Your task to perform on an android device: What's the latest video from GameSpot eSports? Image 0: 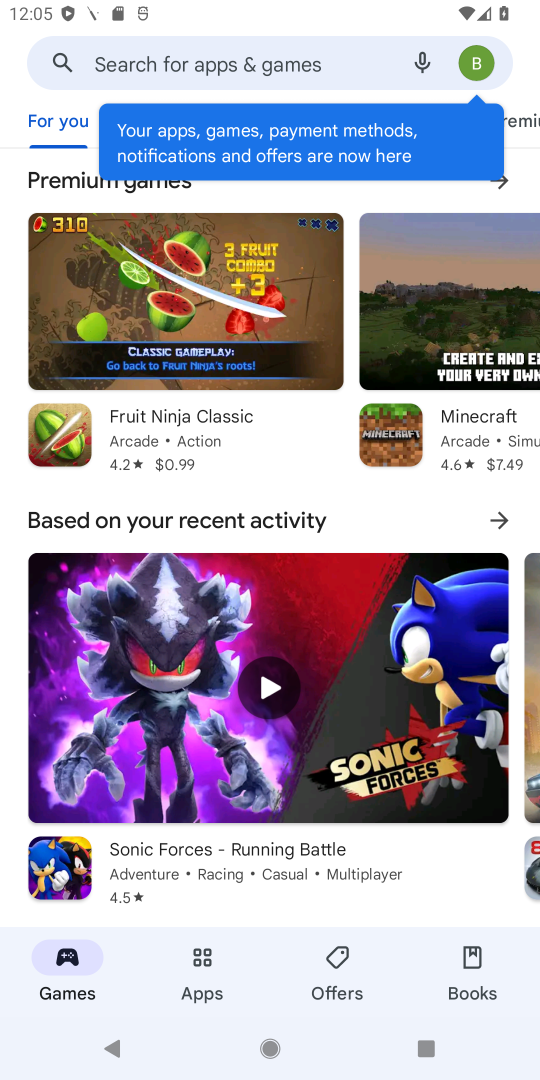
Step 0: press home button
Your task to perform on an android device: What's the latest video from GameSpot eSports? Image 1: 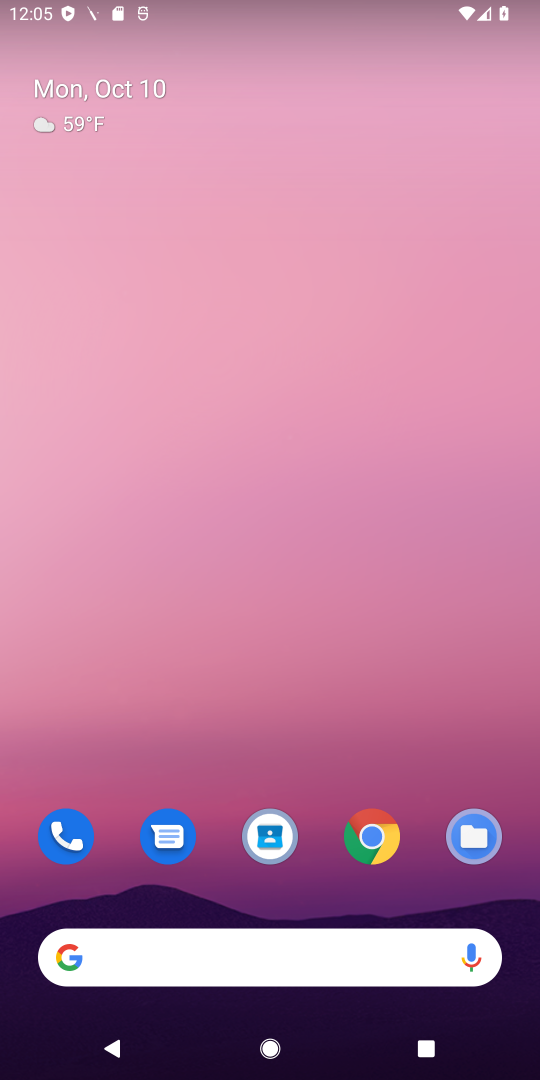
Step 1: drag from (351, 774) to (320, 40)
Your task to perform on an android device: What's the latest video from GameSpot eSports? Image 2: 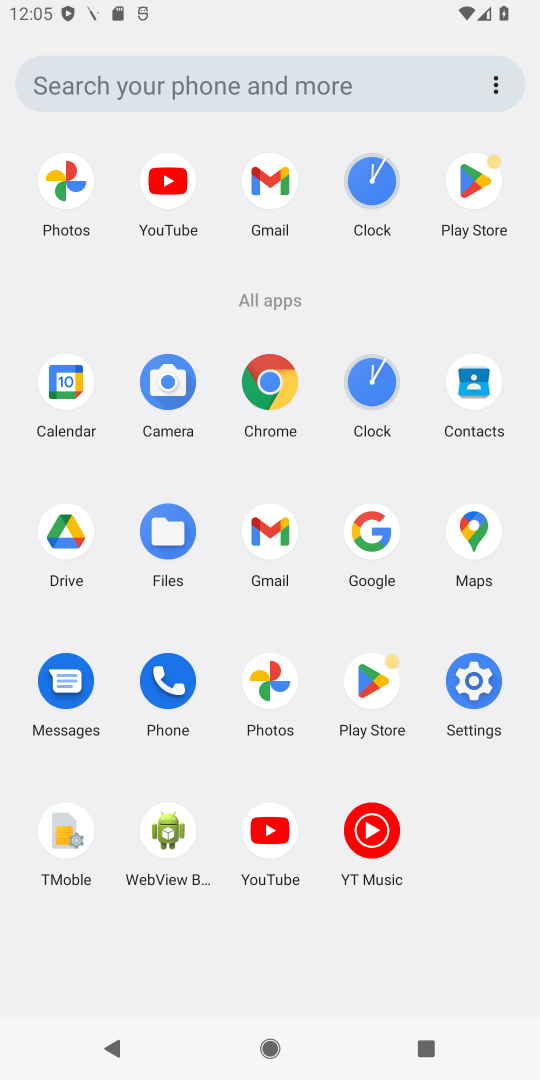
Step 2: click (267, 832)
Your task to perform on an android device: What's the latest video from GameSpot eSports? Image 3: 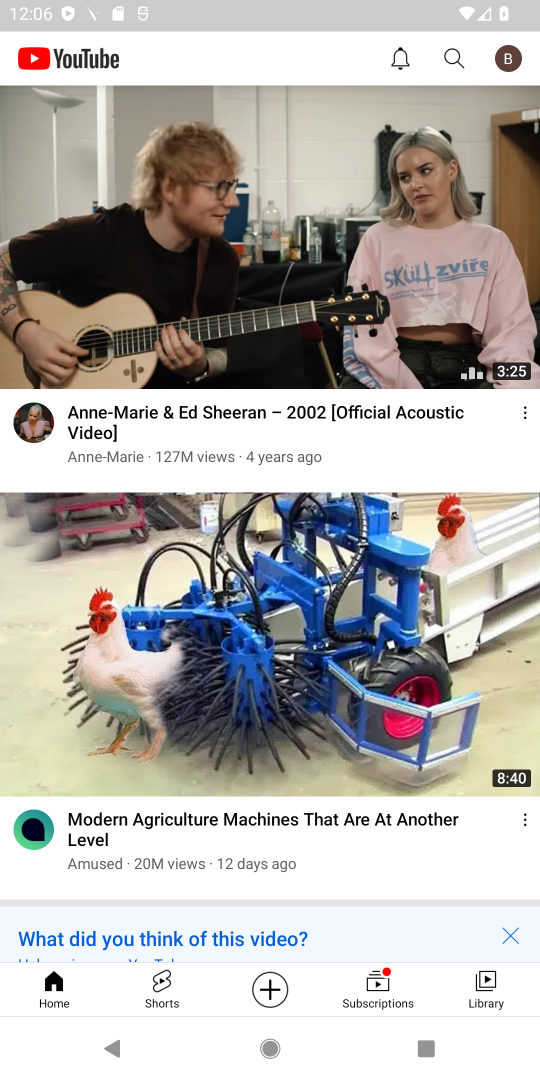
Step 3: click (450, 58)
Your task to perform on an android device: What's the latest video from GameSpot eSports? Image 4: 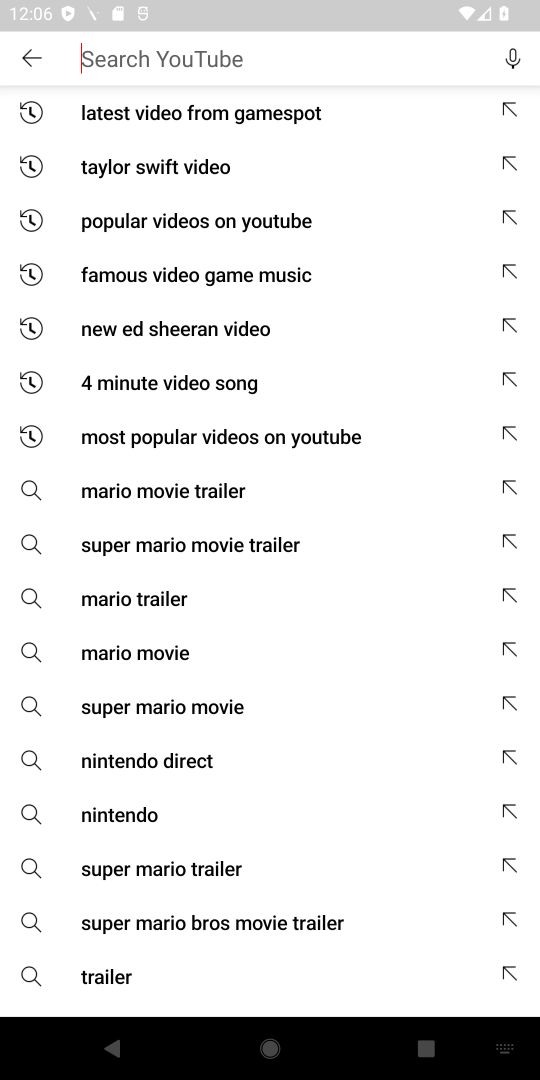
Step 4: type "GameSpot eSports"
Your task to perform on an android device: What's the latest video from GameSpot eSports? Image 5: 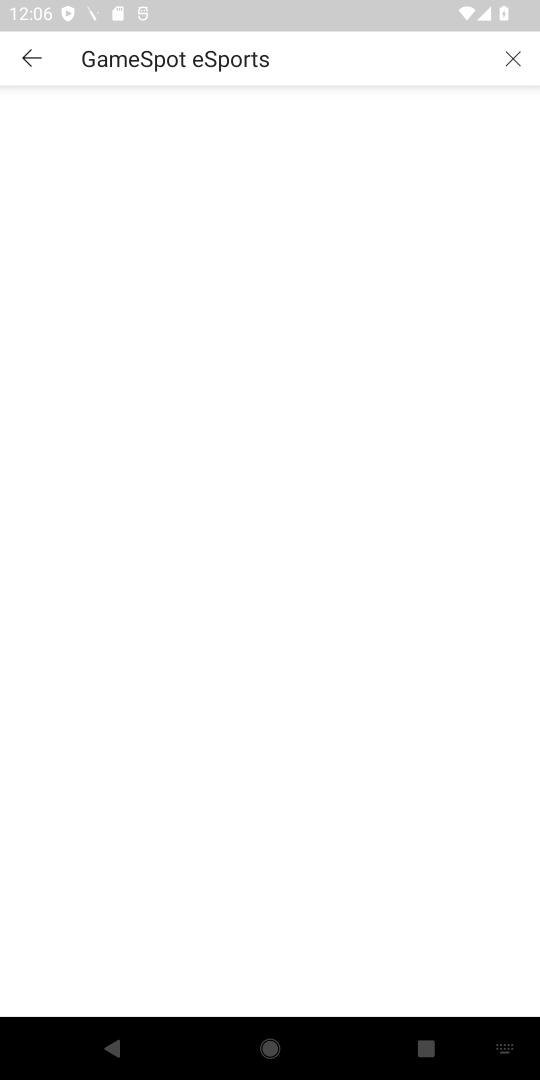
Step 5: type ""
Your task to perform on an android device: What's the latest video from GameSpot eSports? Image 6: 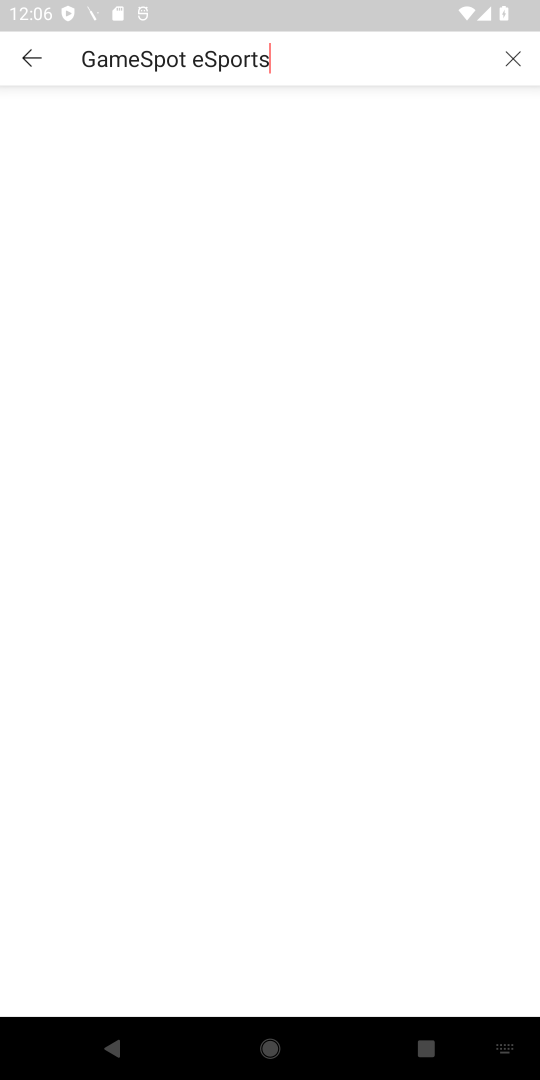
Step 6: press enter
Your task to perform on an android device: What's the latest video from GameSpot eSports? Image 7: 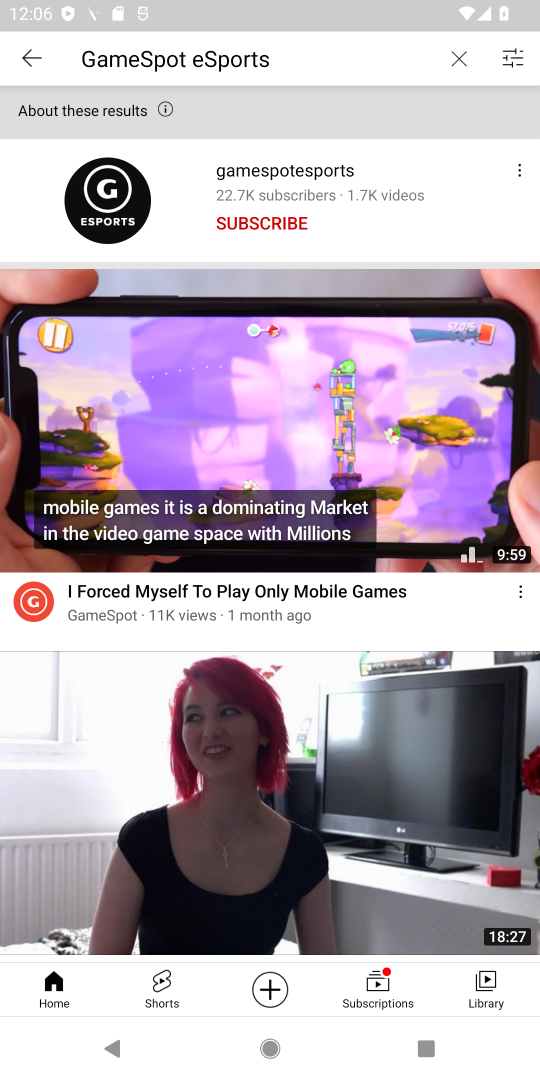
Step 7: click (283, 179)
Your task to perform on an android device: What's the latest video from GameSpot eSports? Image 8: 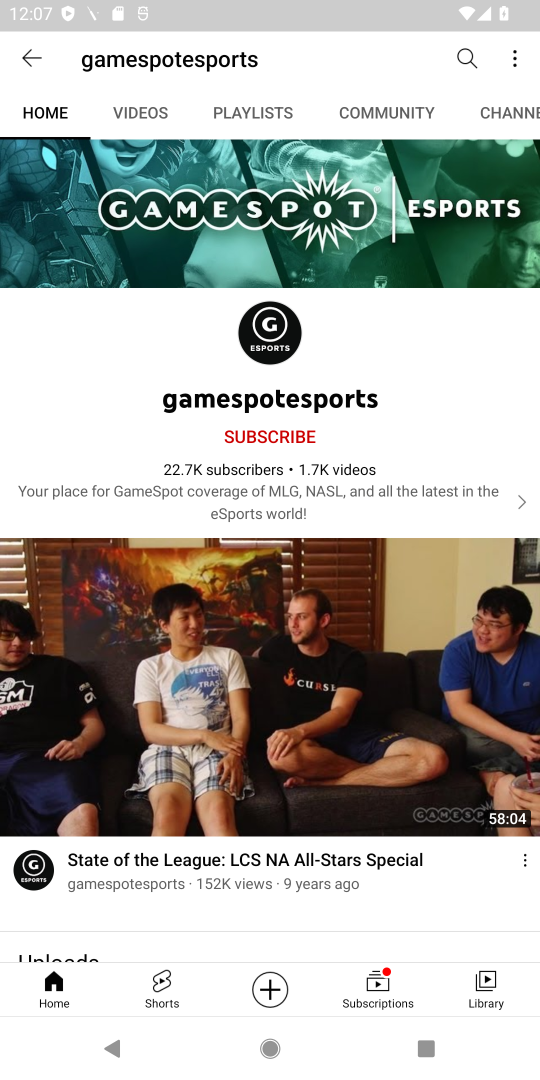
Step 8: click (149, 115)
Your task to perform on an android device: What's the latest video from GameSpot eSports? Image 9: 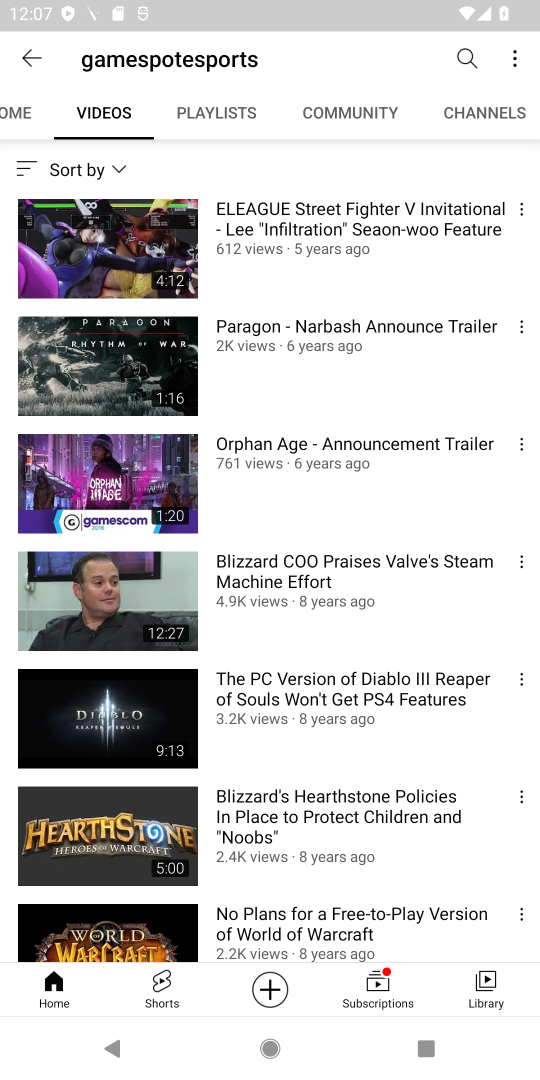
Step 9: task complete